Your task to perform on an android device: open app "Google Chrome" Image 0: 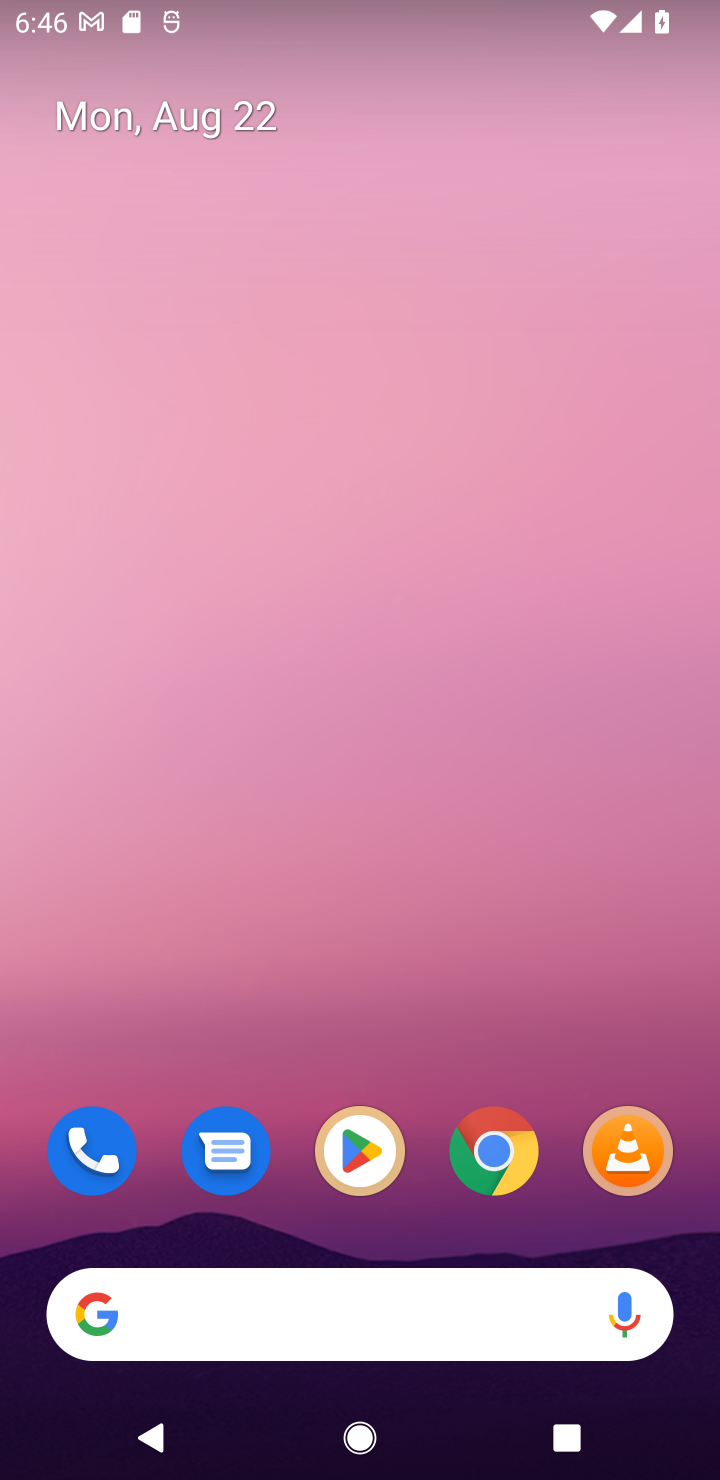
Step 0: click (360, 1153)
Your task to perform on an android device: open app "Google Chrome" Image 1: 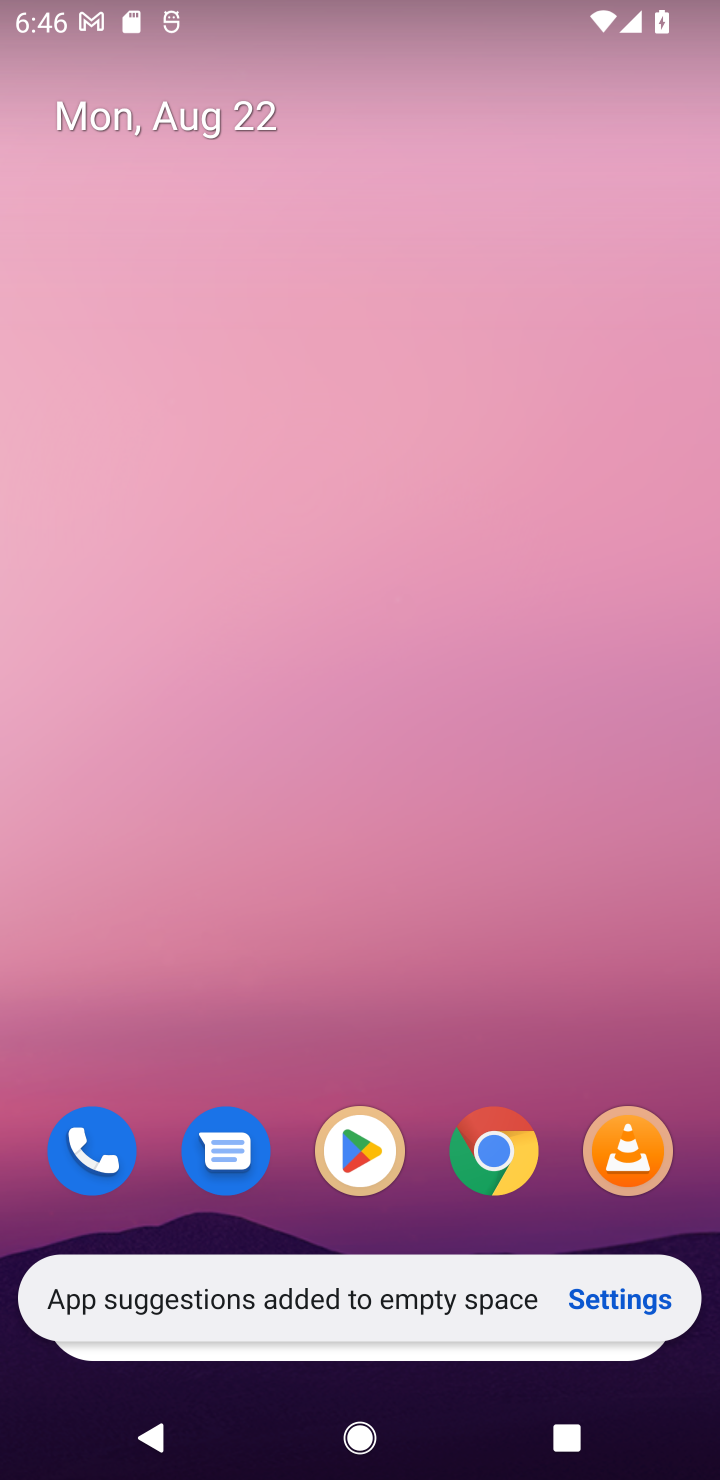
Step 1: click (360, 1153)
Your task to perform on an android device: open app "Google Chrome" Image 2: 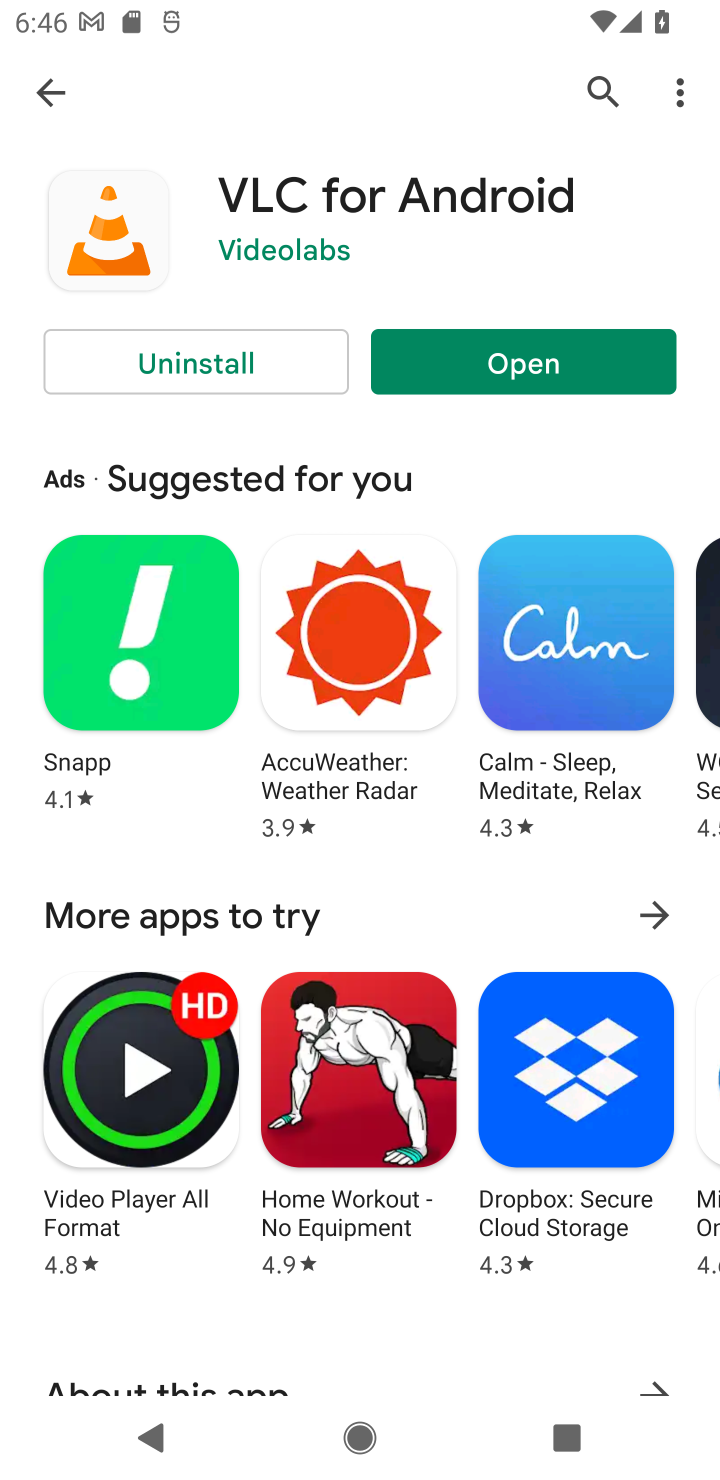
Step 2: click (588, 88)
Your task to perform on an android device: open app "Google Chrome" Image 3: 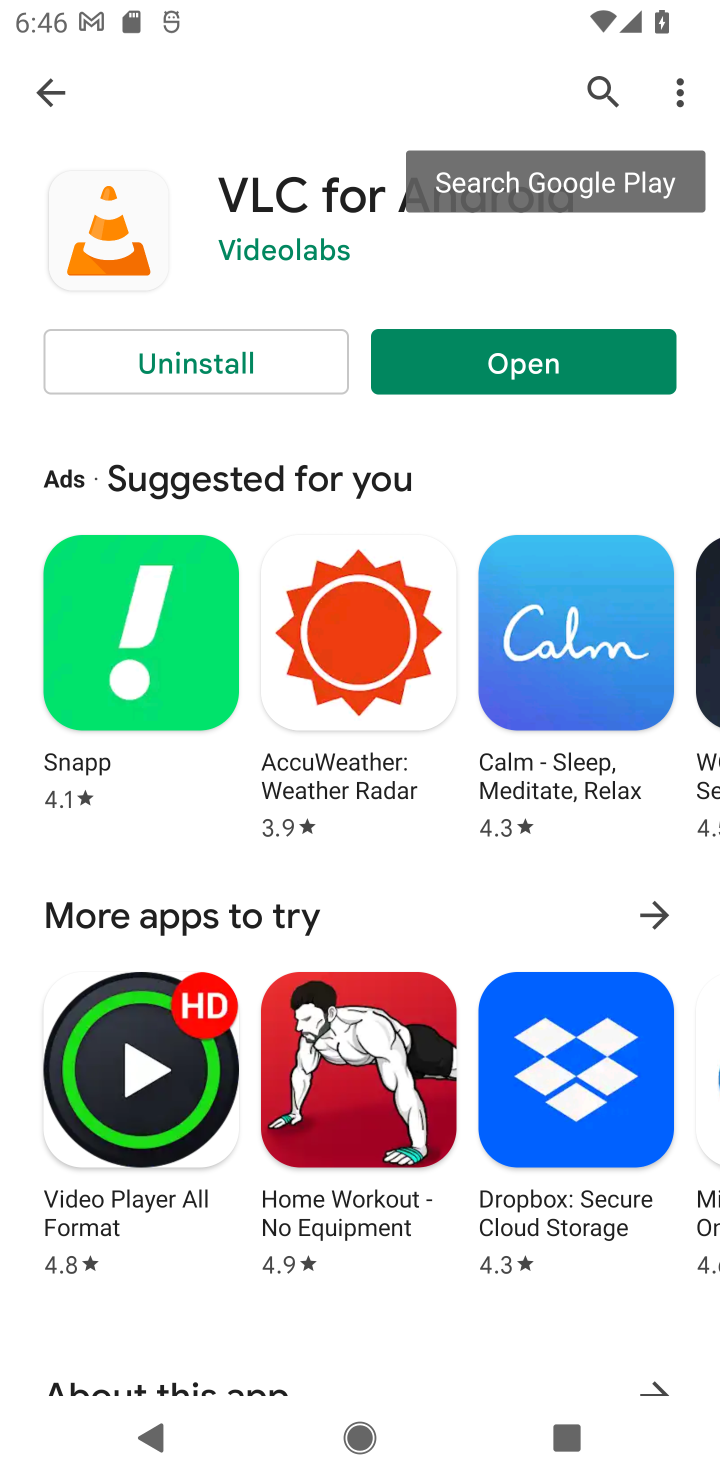
Step 3: click (596, 81)
Your task to perform on an android device: open app "Google Chrome" Image 4: 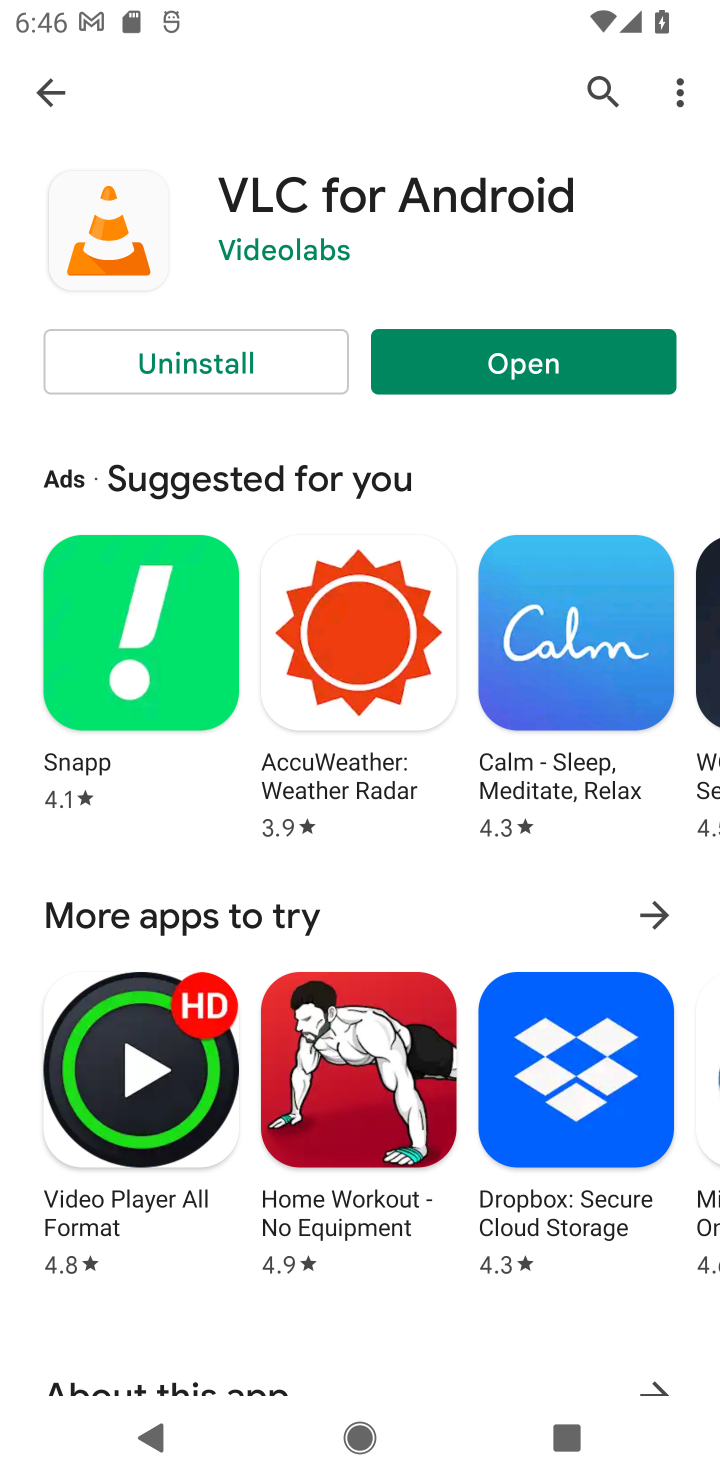
Step 4: click (596, 81)
Your task to perform on an android device: open app "Google Chrome" Image 5: 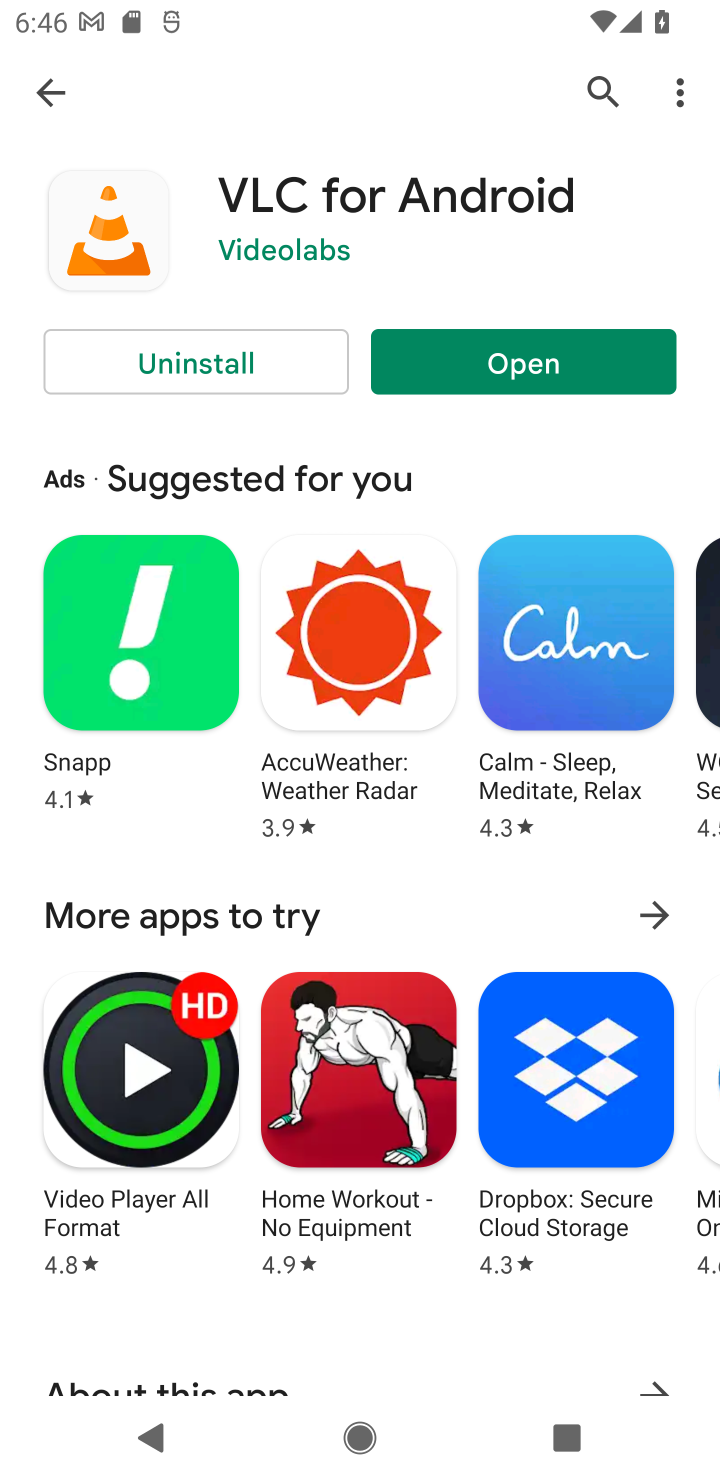
Step 5: click (611, 81)
Your task to perform on an android device: open app "Google Chrome" Image 6: 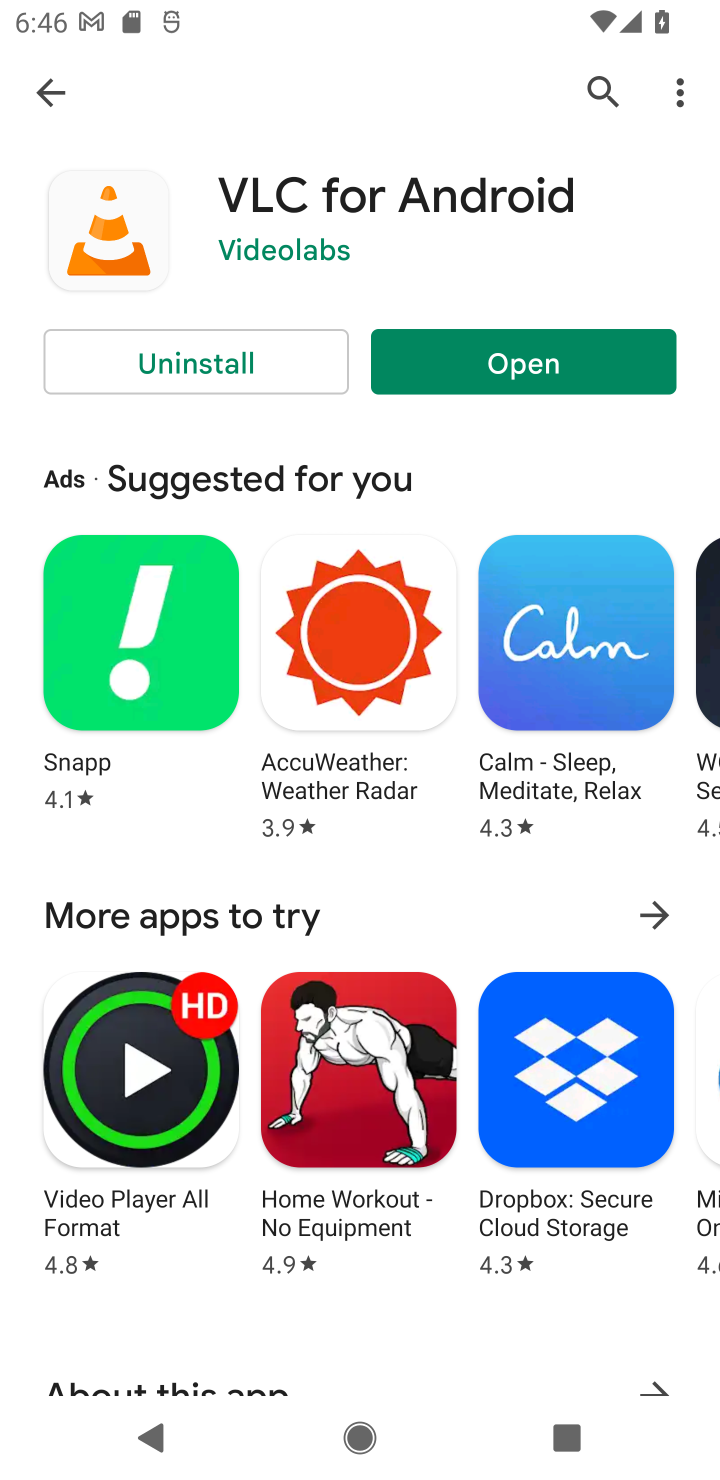
Step 6: click (44, 87)
Your task to perform on an android device: open app "Google Chrome" Image 7: 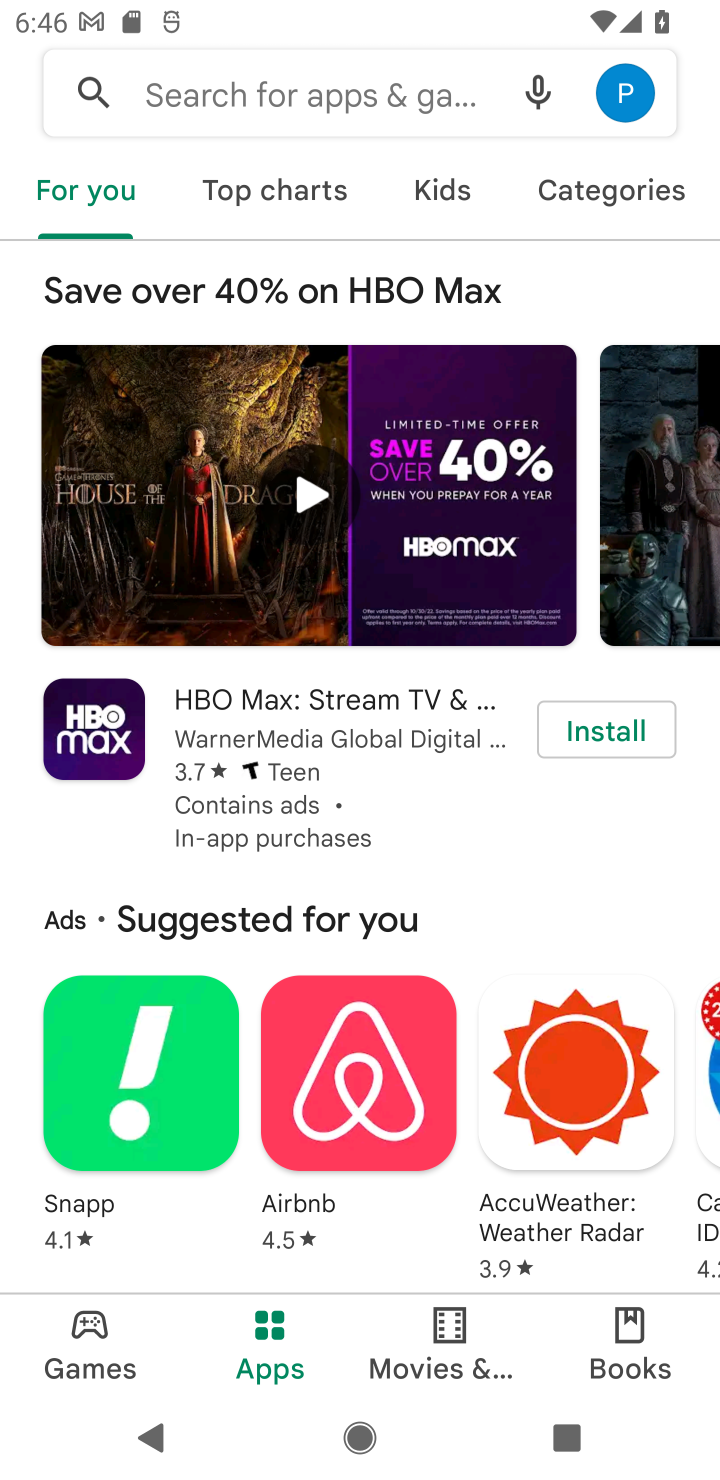
Step 7: click (416, 106)
Your task to perform on an android device: open app "Google Chrome" Image 8: 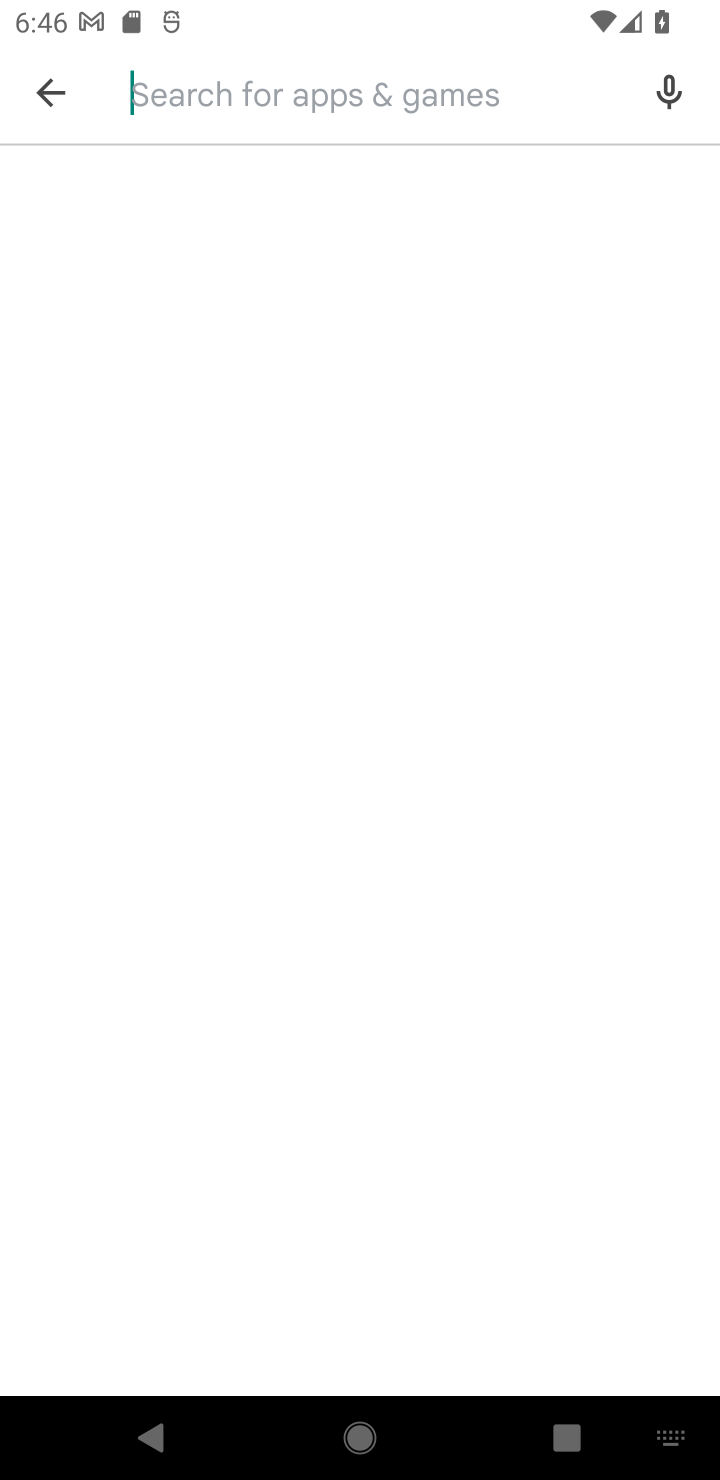
Step 8: type "Google Chrome"
Your task to perform on an android device: open app "Google Chrome" Image 9: 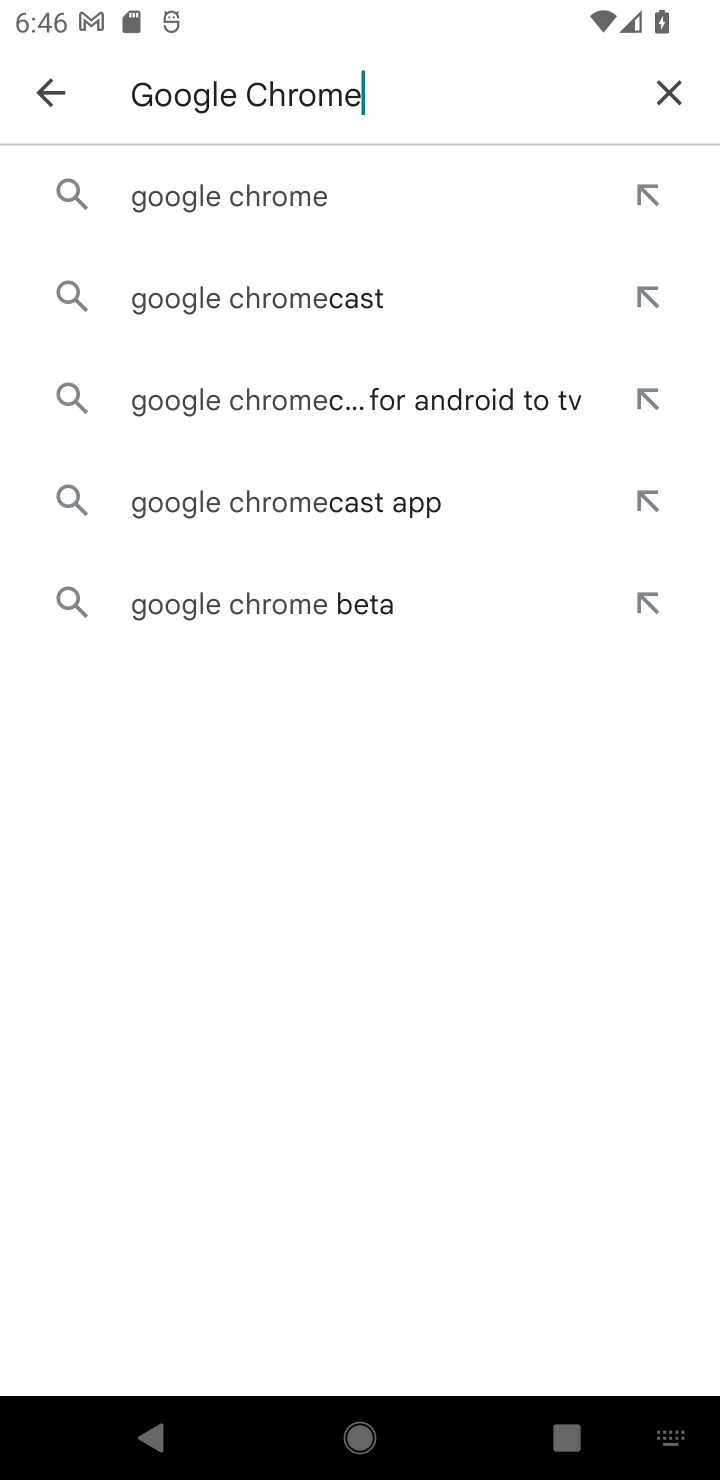
Step 9: click (294, 192)
Your task to perform on an android device: open app "Google Chrome" Image 10: 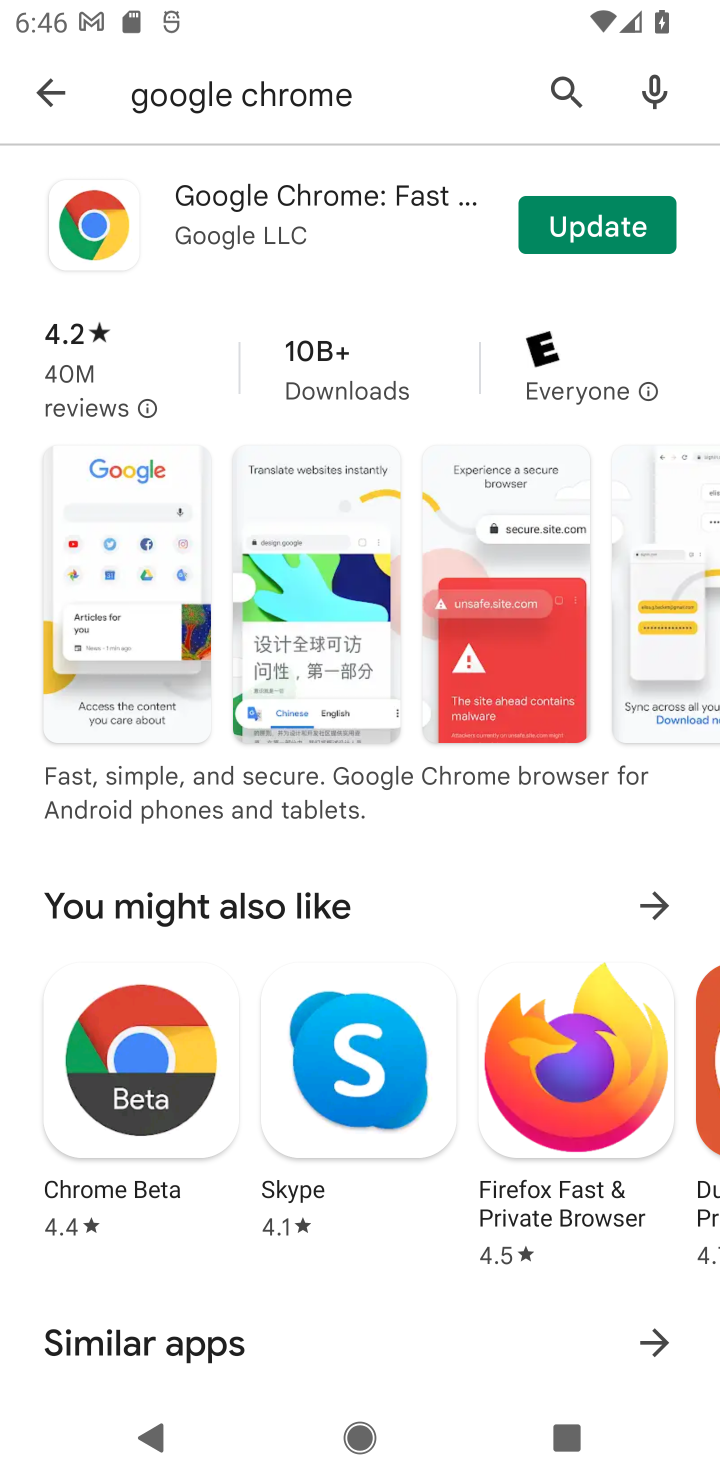
Step 10: click (229, 218)
Your task to perform on an android device: open app "Google Chrome" Image 11: 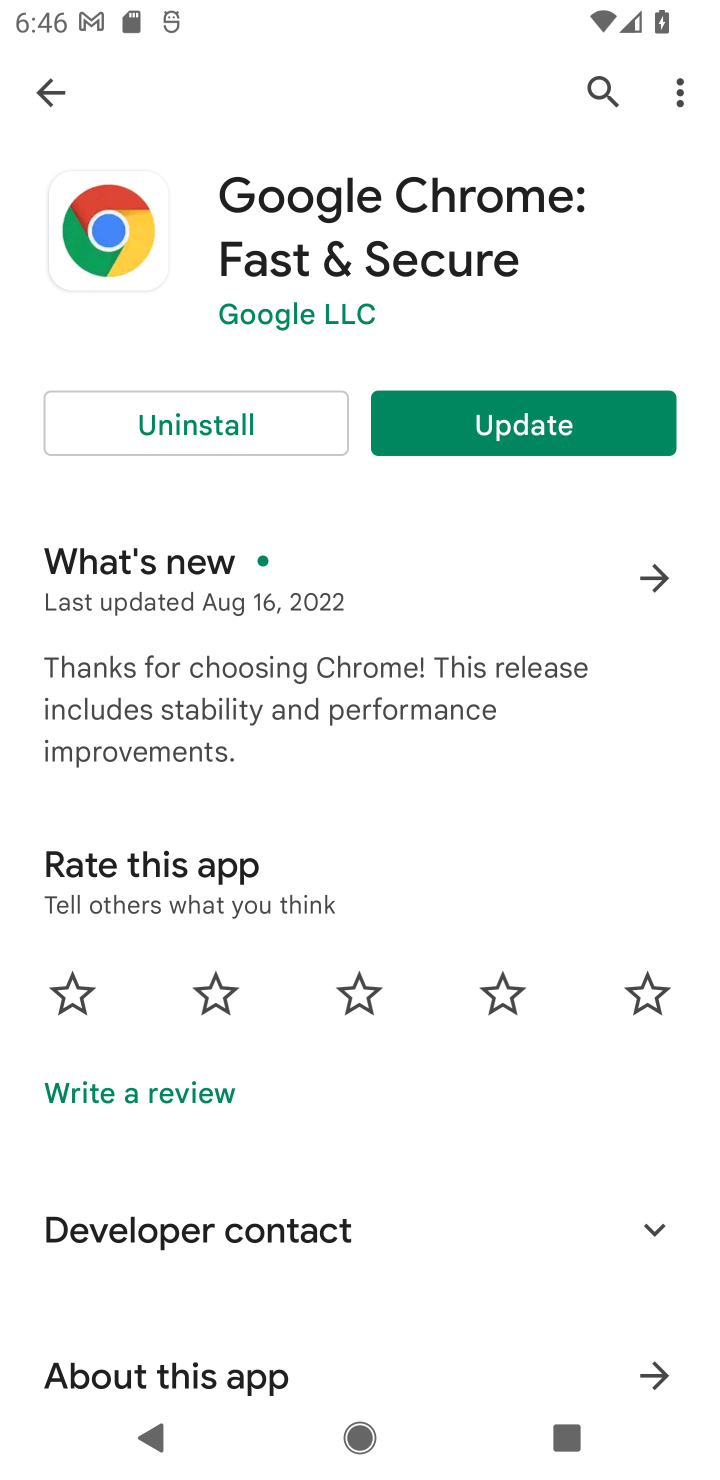
Step 11: click (543, 429)
Your task to perform on an android device: open app "Google Chrome" Image 12: 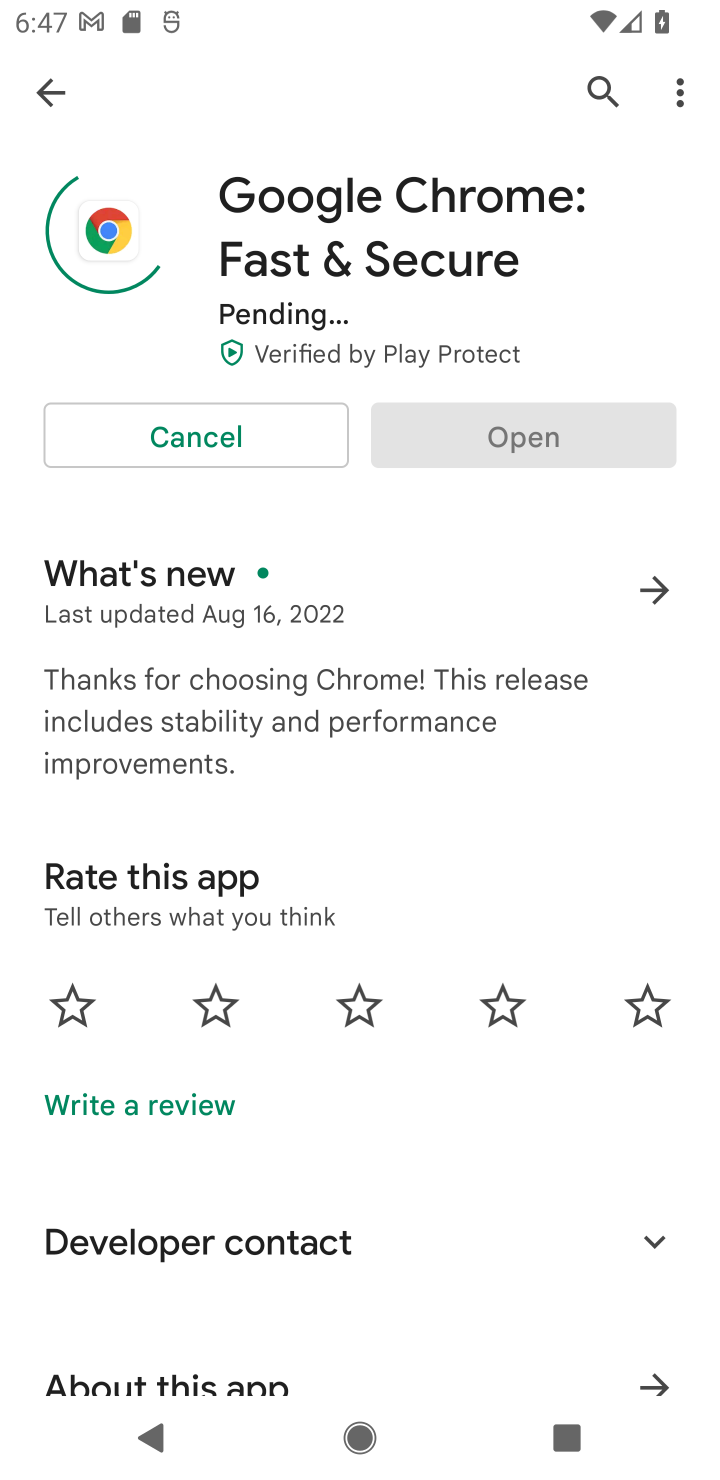
Step 12: click (37, 94)
Your task to perform on an android device: open app "Google Chrome" Image 13: 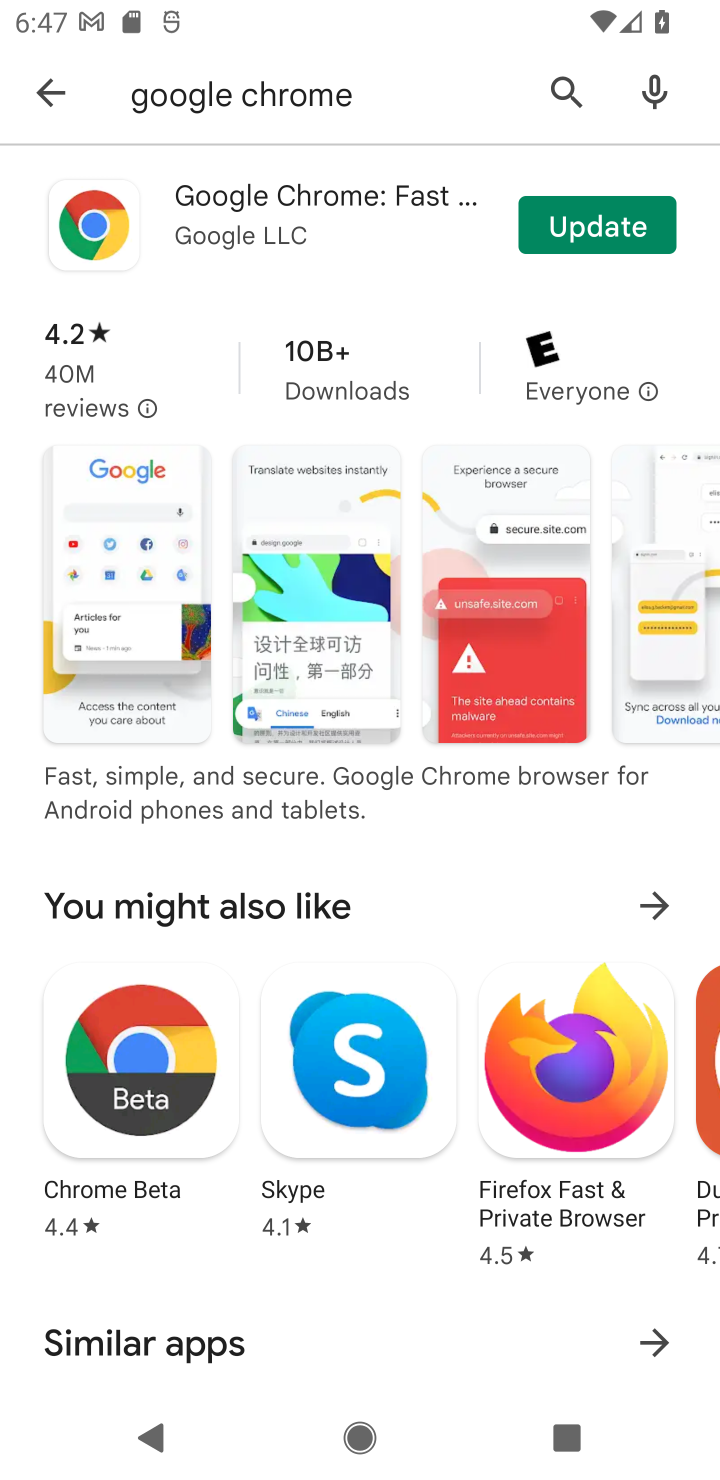
Step 13: task complete